Your task to perform on an android device: Open settings Image 0: 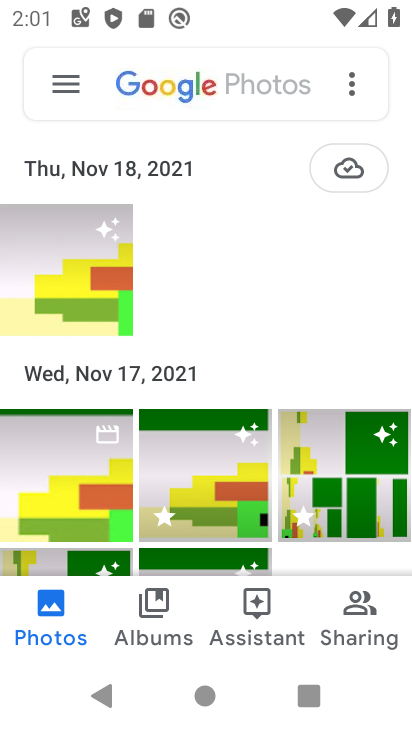
Step 0: press home button
Your task to perform on an android device: Open settings Image 1: 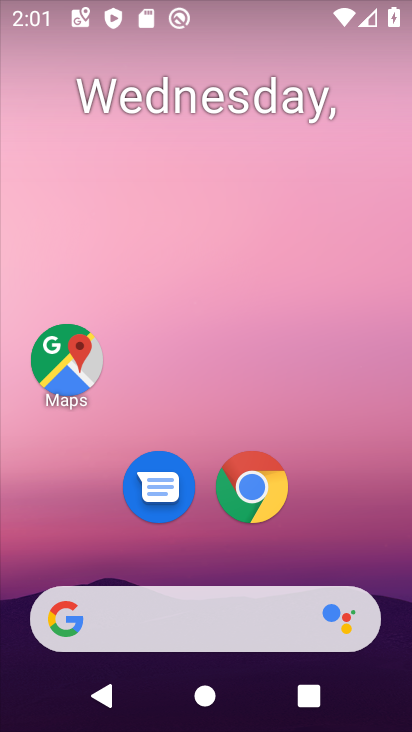
Step 1: drag from (350, 517) to (237, 160)
Your task to perform on an android device: Open settings Image 2: 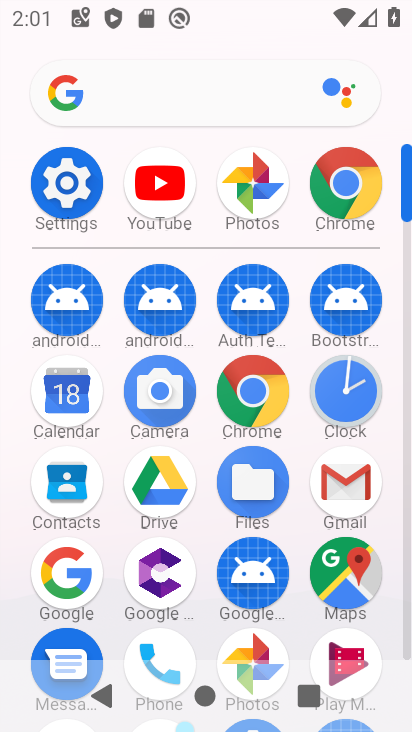
Step 2: click (74, 188)
Your task to perform on an android device: Open settings Image 3: 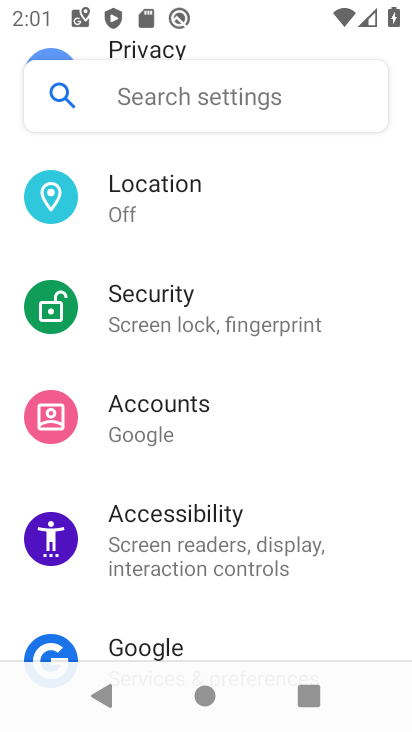
Step 3: task complete